Your task to perform on an android device: Open network settings Image 0: 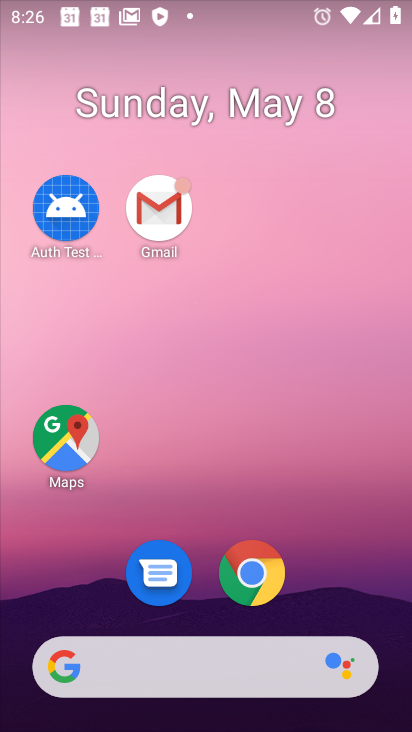
Step 0: drag from (344, 558) to (134, 229)
Your task to perform on an android device: Open network settings Image 1: 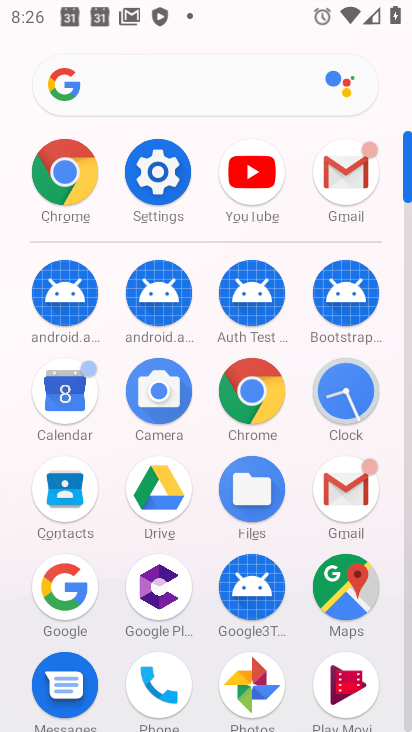
Step 1: click (147, 170)
Your task to perform on an android device: Open network settings Image 2: 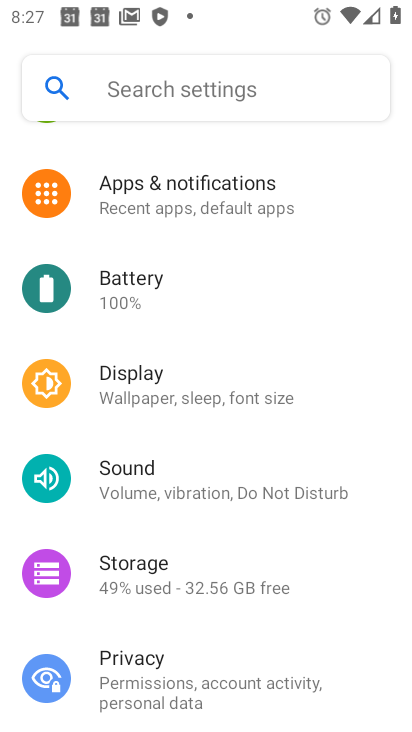
Step 2: drag from (215, 669) to (246, 610)
Your task to perform on an android device: Open network settings Image 3: 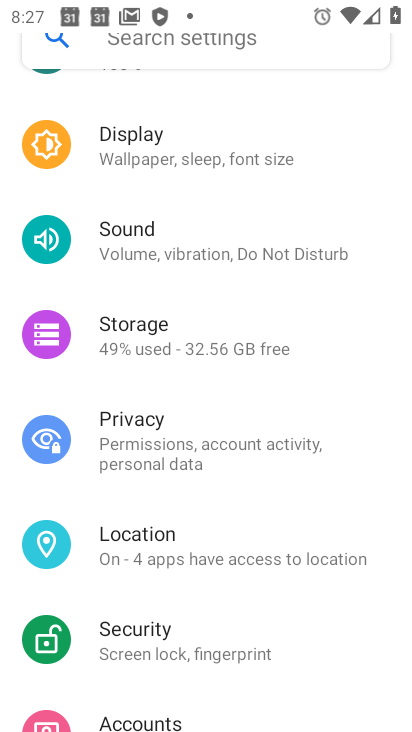
Step 3: drag from (207, 300) to (254, 623)
Your task to perform on an android device: Open network settings Image 4: 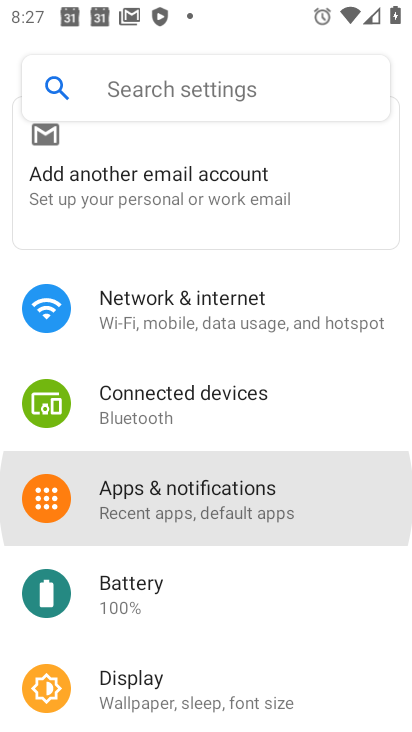
Step 4: drag from (254, 449) to (265, 604)
Your task to perform on an android device: Open network settings Image 5: 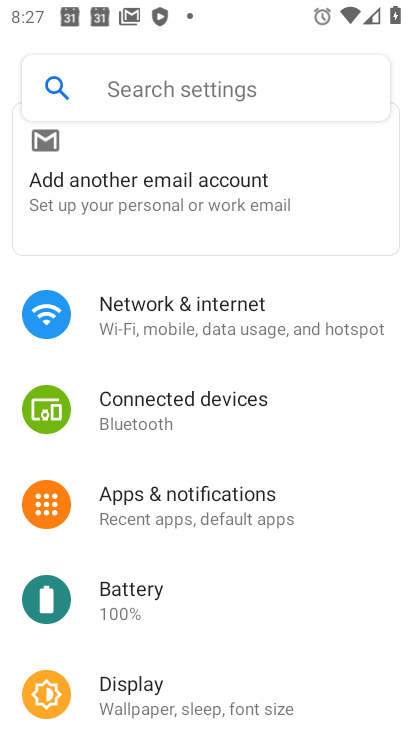
Step 5: click (198, 323)
Your task to perform on an android device: Open network settings Image 6: 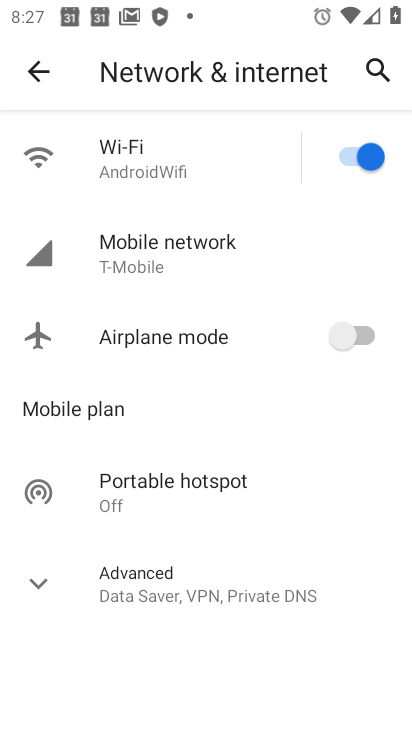
Step 6: task complete